Your task to perform on an android device: Search for Italian restaurants on Maps Image 0: 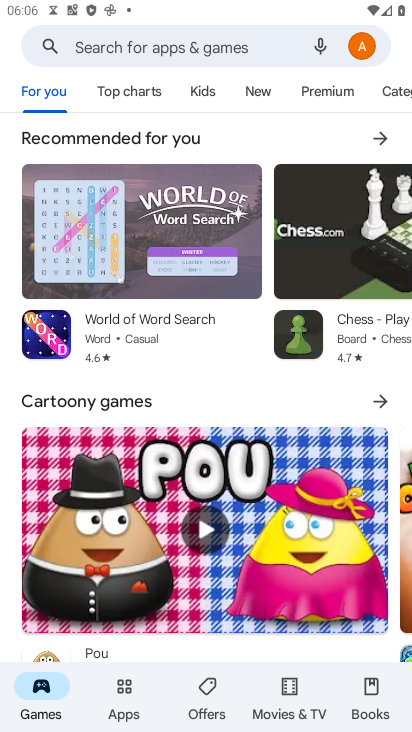
Step 0: press home button
Your task to perform on an android device: Search for Italian restaurants on Maps Image 1: 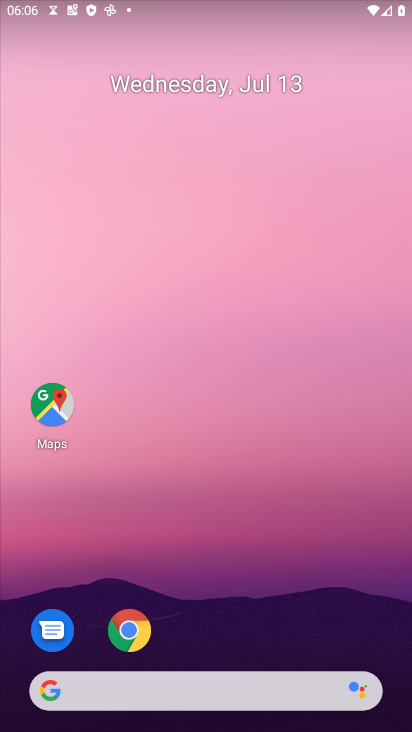
Step 1: drag from (281, 693) to (411, 52)
Your task to perform on an android device: Search for Italian restaurants on Maps Image 2: 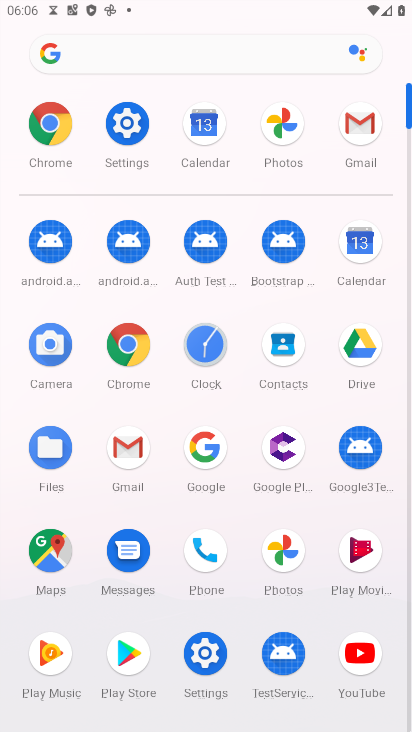
Step 2: click (37, 557)
Your task to perform on an android device: Search for Italian restaurants on Maps Image 3: 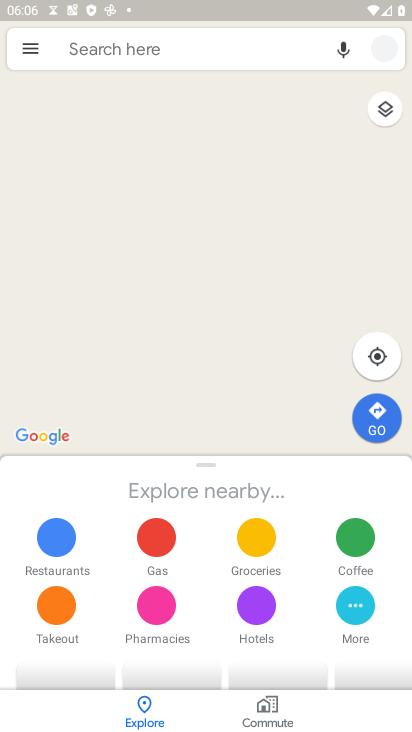
Step 3: click (196, 59)
Your task to perform on an android device: Search for Italian restaurants on Maps Image 4: 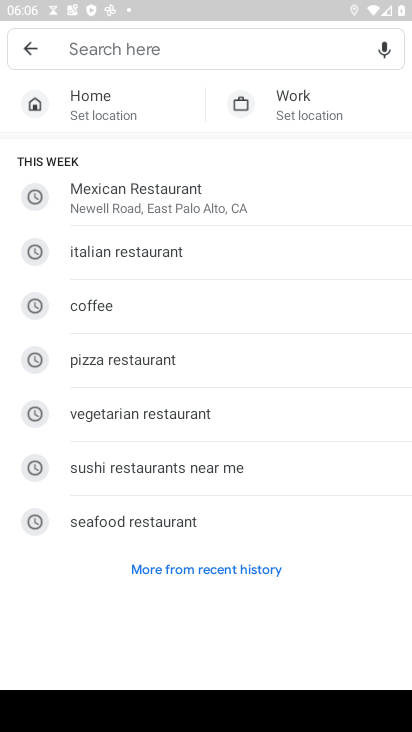
Step 4: click (106, 259)
Your task to perform on an android device: Search for Italian restaurants on Maps Image 5: 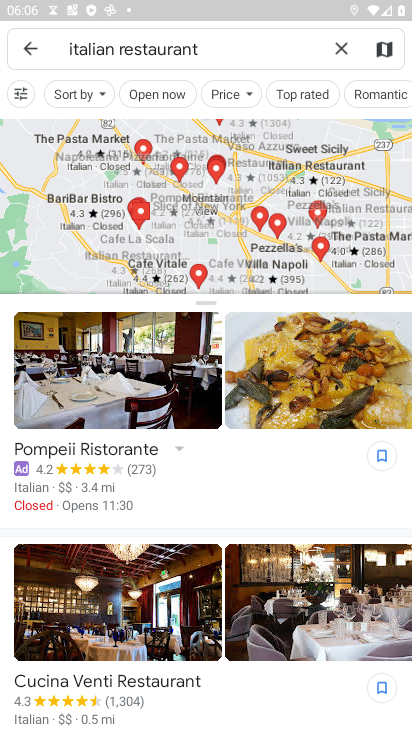
Step 5: task complete